Your task to perform on an android device: check the backup settings in the google photos Image 0: 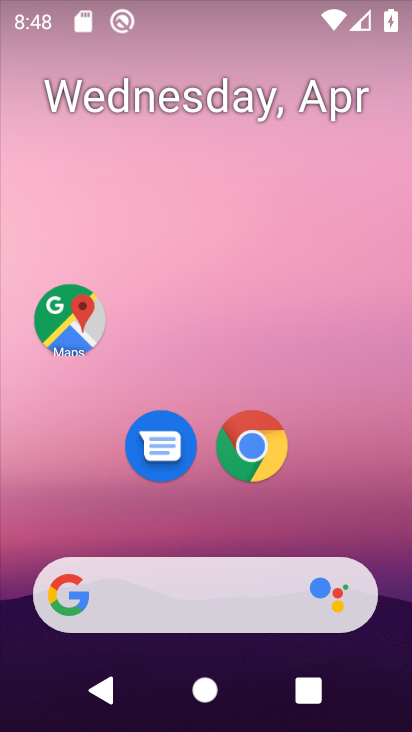
Step 0: drag from (369, 495) to (374, 183)
Your task to perform on an android device: check the backup settings in the google photos Image 1: 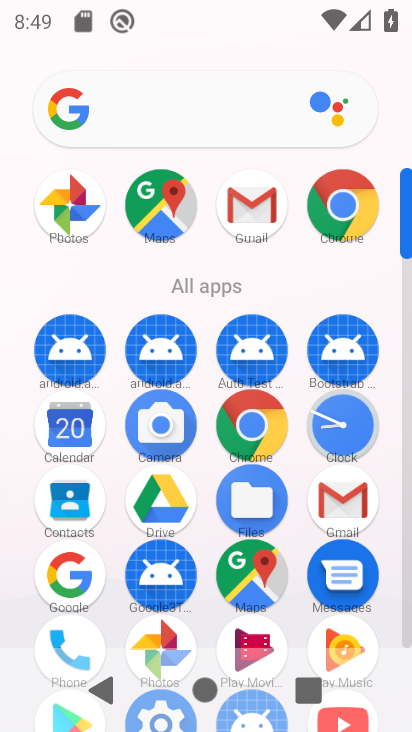
Step 1: drag from (302, 603) to (311, 283)
Your task to perform on an android device: check the backup settings in the google photos Image 2: 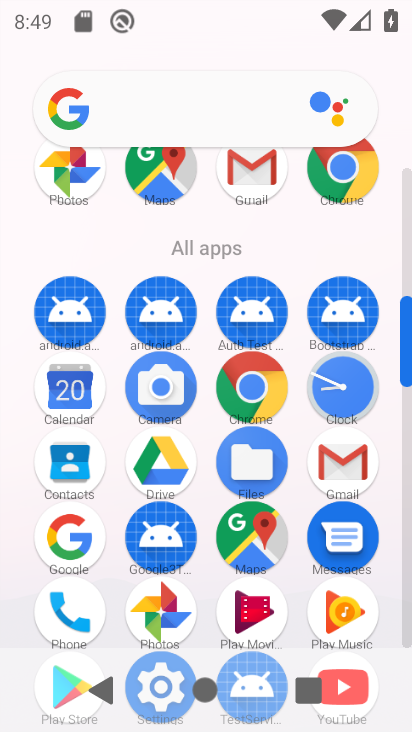
Step 2: click (169, 602)
Your task to perform on an android device: check the backup settings in the google photos Image 3: 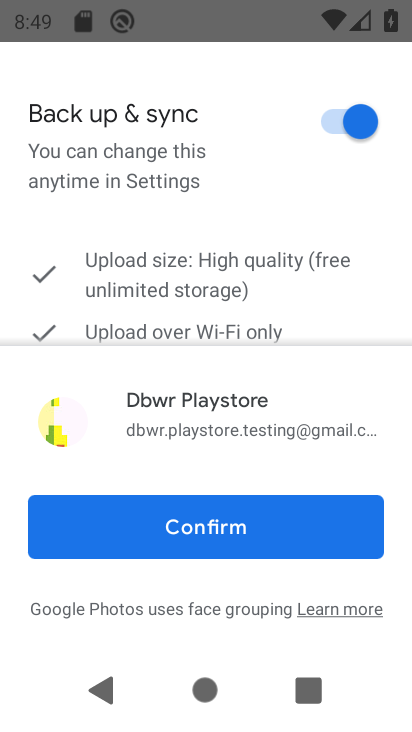
Step 3: click (264, 528)
Your task to perform on an android device: check the backup settings in the google photos Image 4: 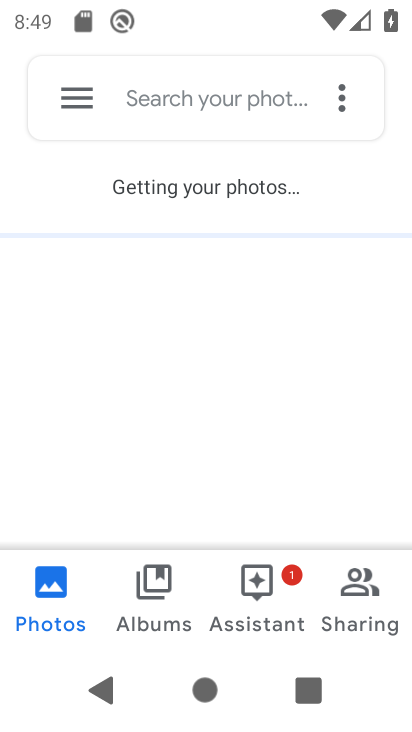
Step 4: click (141, 106)
Your task to perform on an android device: check the backup settings in the google photos Image 5: 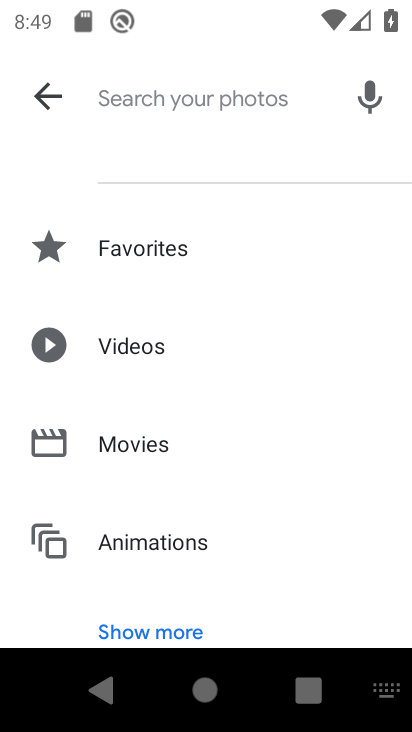
Step 5: click (49, 94)
Your task to perform on an android device: check the backup settings in the google photos Image 6: 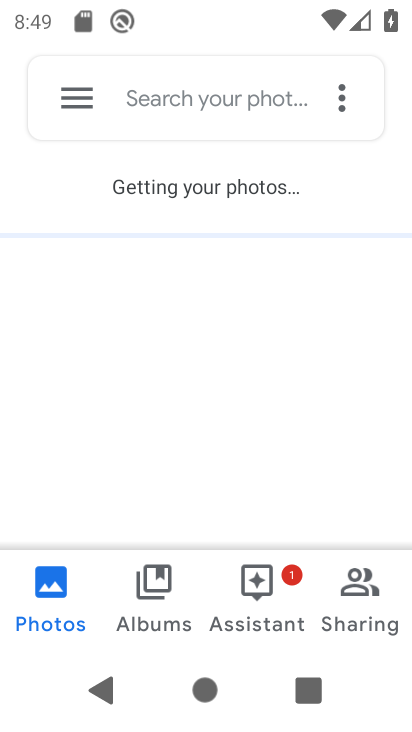
Step 6: click (48, 98)
Your task to perform on an android device: check the backup settings in the google photos Image 7: 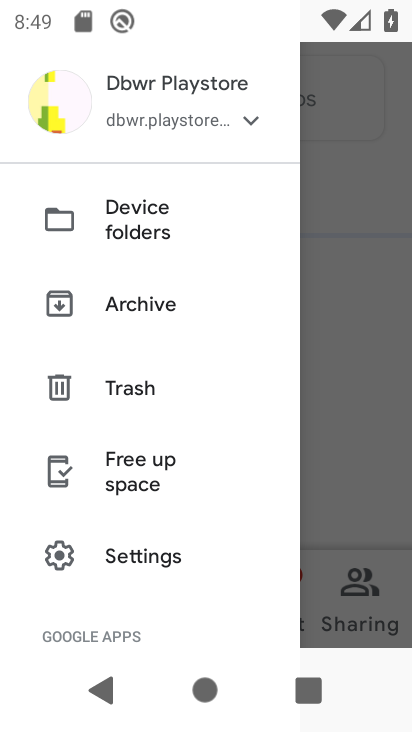
Step 7: click (156, 553)
Your task to perform on an android device: check the backup settings in the google photos Image 8: 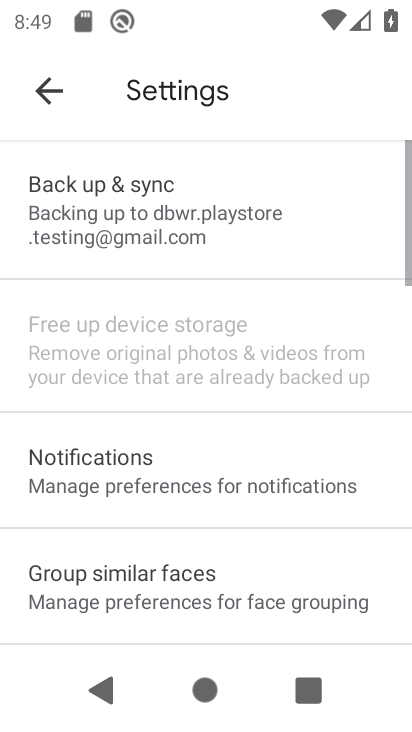
Step 8: click (182, 214)
Your task to perform on an android device: check the backup settings in the google photos Image 9: 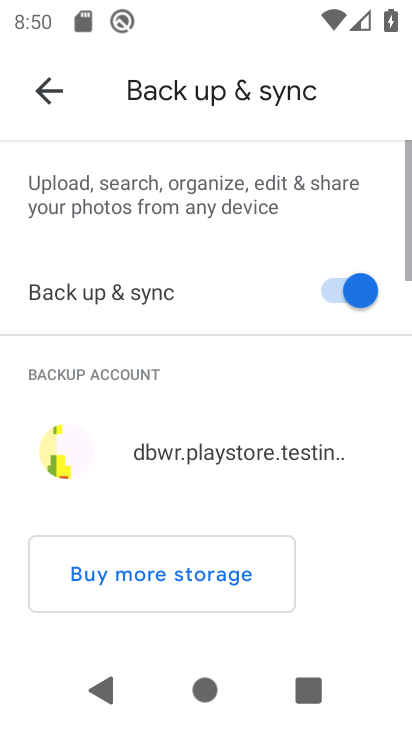
Step 9: task complete